Your task to perform on an android device: Open Youtube and go to "Your channel" Image 0: 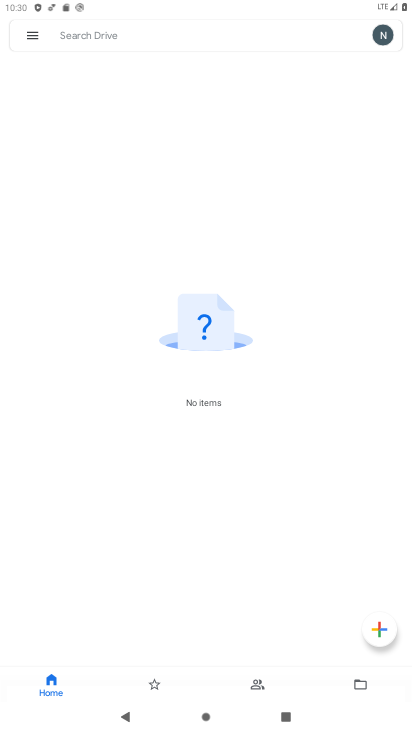
Step 0: press home button
Your task to perform on an android device: Open Youtube and go to "Your channel" Image 1: 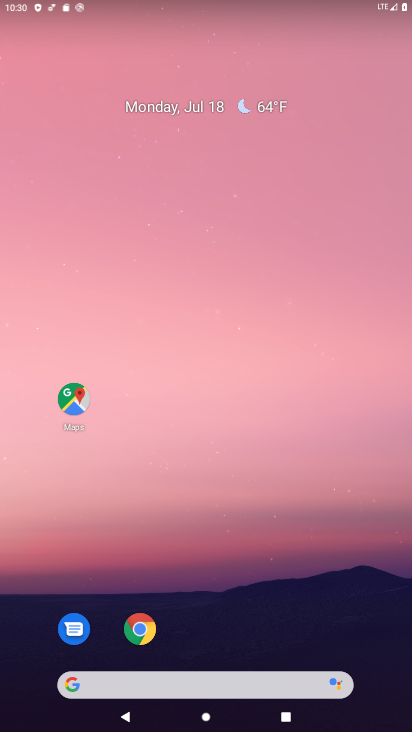
Step 1: drag from (281, 567) to (326, 63)
Your task to perform on an android device: Open Youtube and go to "Your channel" Image 2: 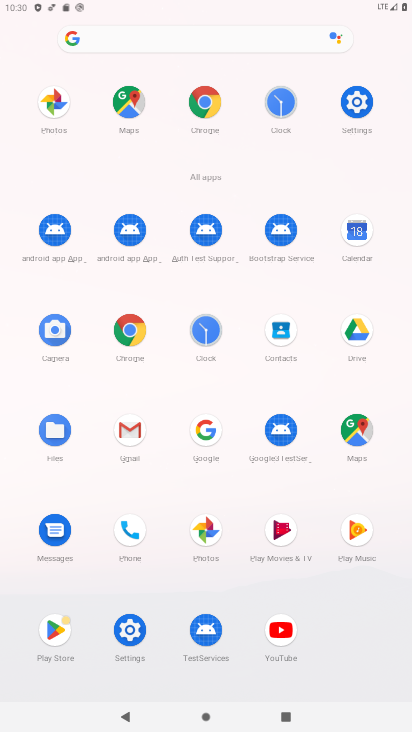
Step 2: click (278, 624)
Your task to perform on an android device: Open Youtube and go to "Your channel" Image 3: 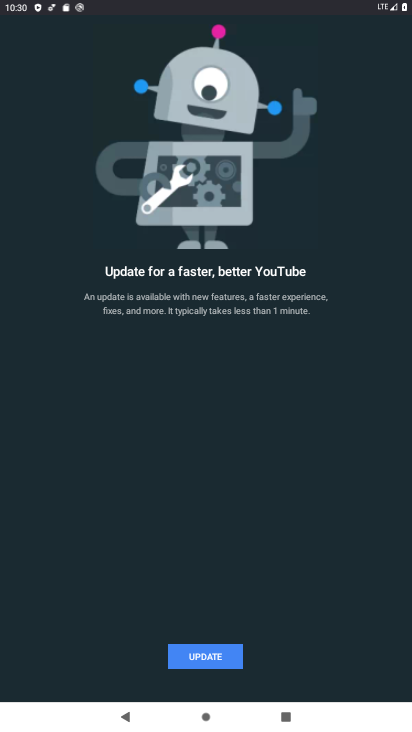
Step 3: click (232, 653)
Your task to perform on an android device: Open Youtube and go to "Your channel" Image 4: 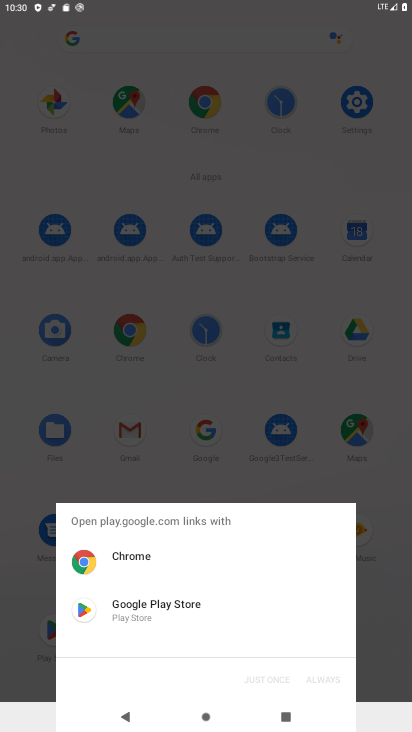
Step 4: click (151, 615)
Your task to perform on an android device: Open Youtube and go to "Your channel" Image 5: 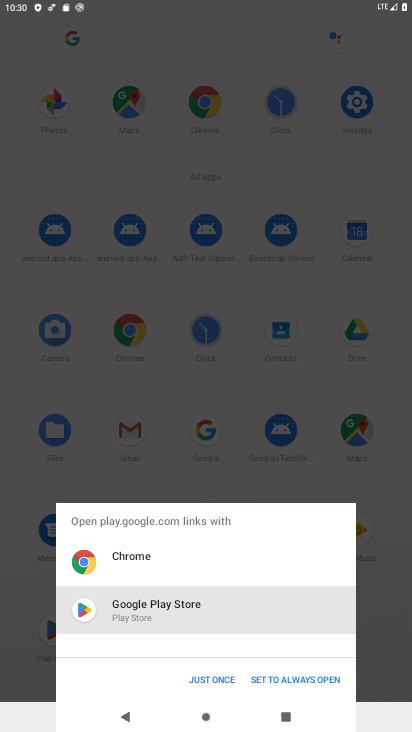
Step 5: click (219, 678)
Your task to perform on an android device: Open Youtube and go to "Your channel" Image 6: 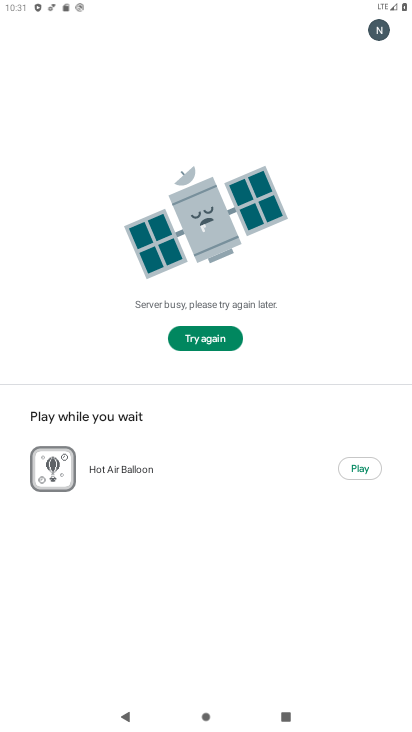
Step 6: click (184, 339)
Your task to perform on an android device: Open Youtube and go to "Your channel" Image 7: 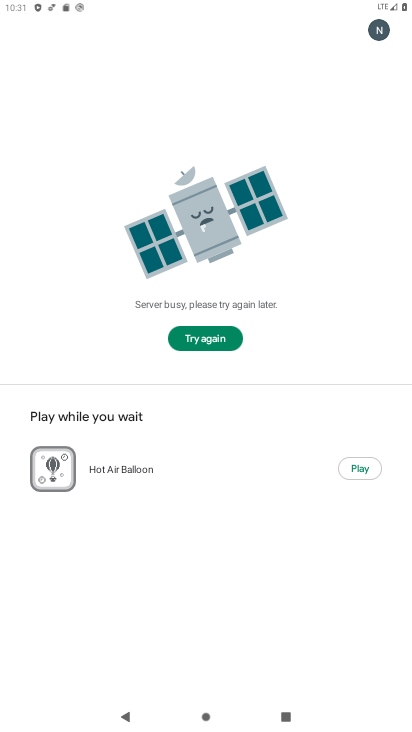
Step 7: task complete